Your task to perform on an android device: install app "Google Calendar" Image 0: 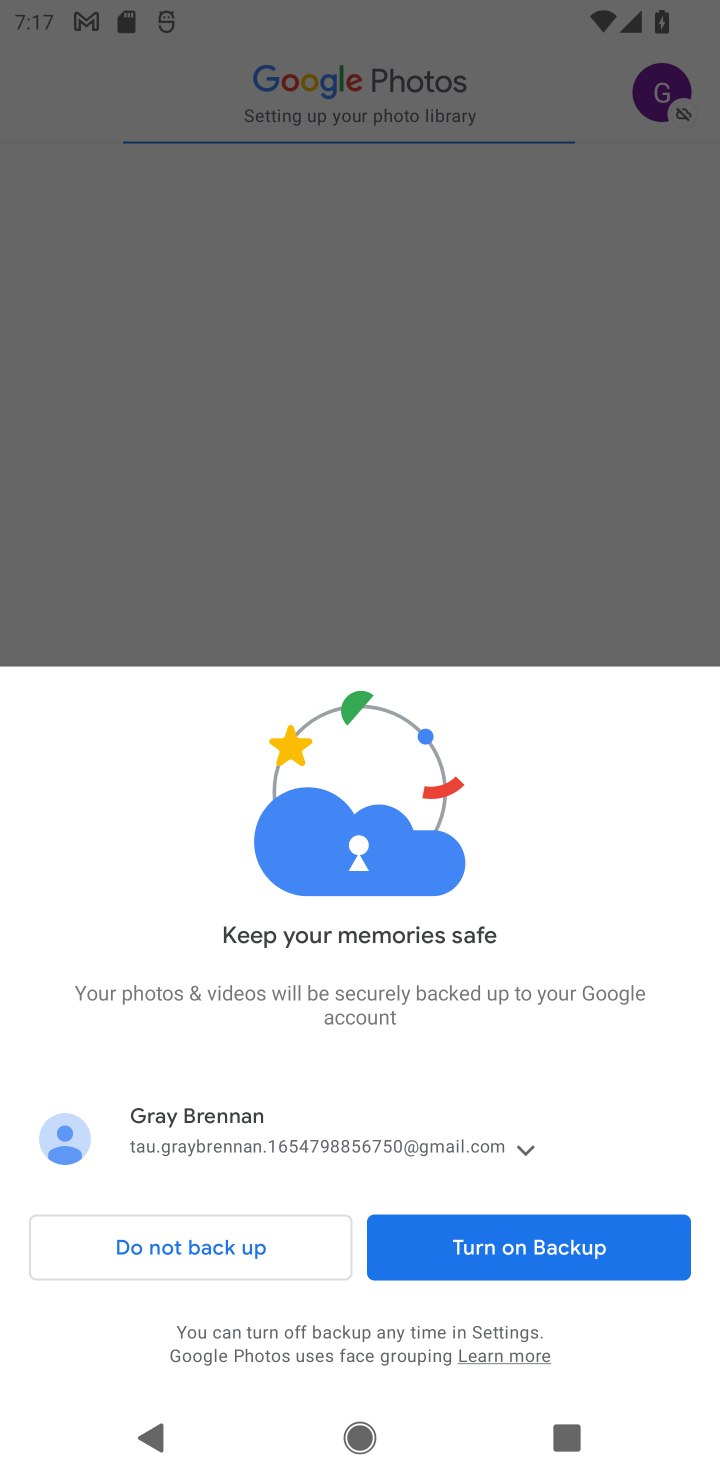
Step 0: press home button
Your task to perform on an android device: install app "Google Calendar" Image 1: 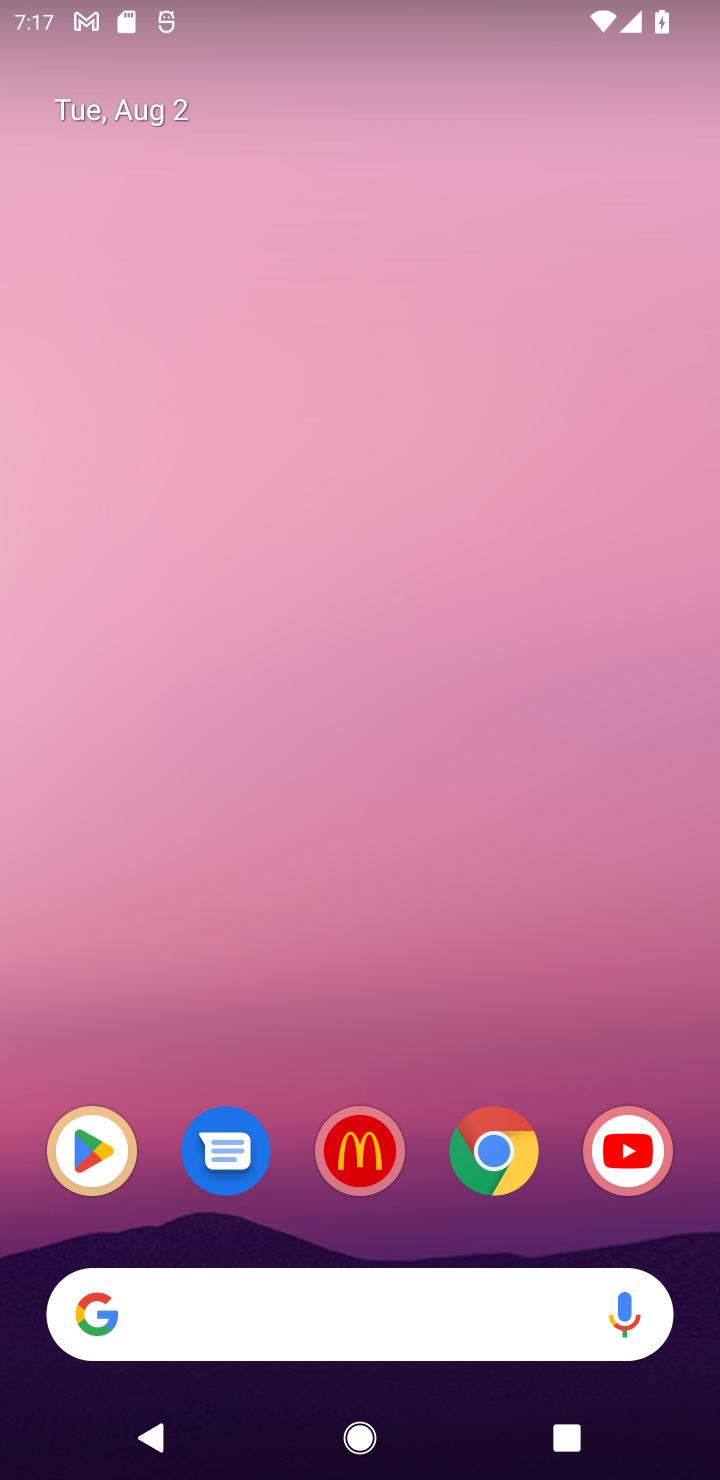
Step 1: drag from (331, 1271) to (589, 17)
Your task to perform on an android device: install app "Google Calendar" Image 2: 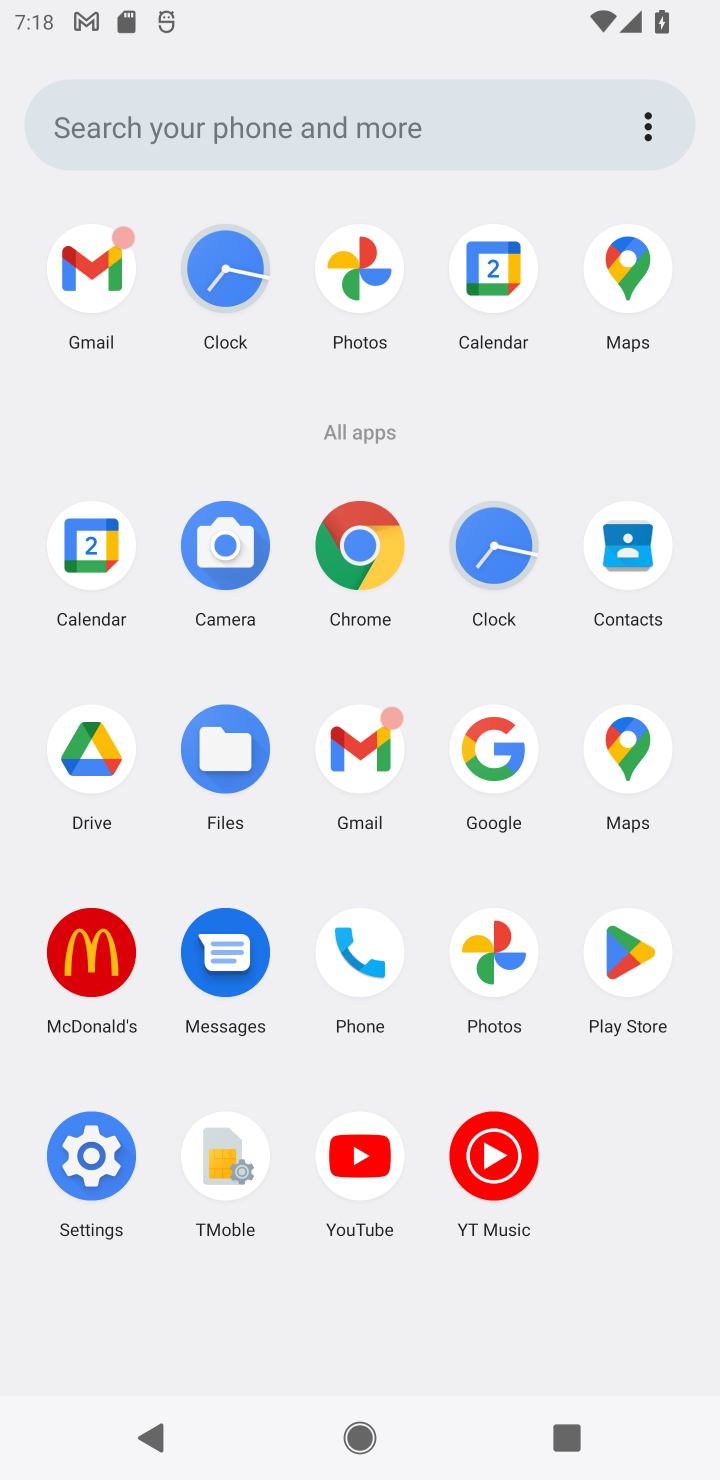
Step 2: click (77, 576)
Your task to perform on an android device: install app "Google Calendar" Image 3: 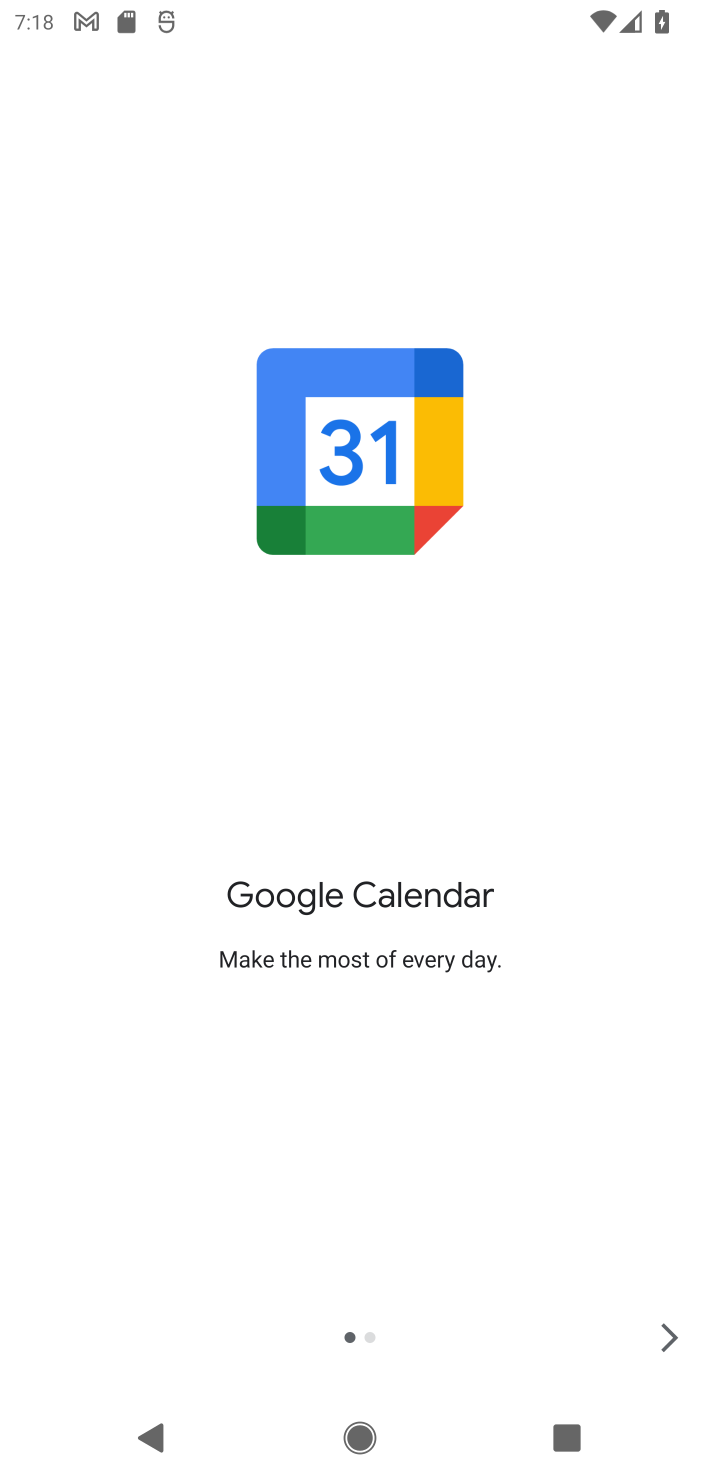
Step 3: click (680, 1354)
Your task to perform on an android device: install app "Google Calendar" Image 4: 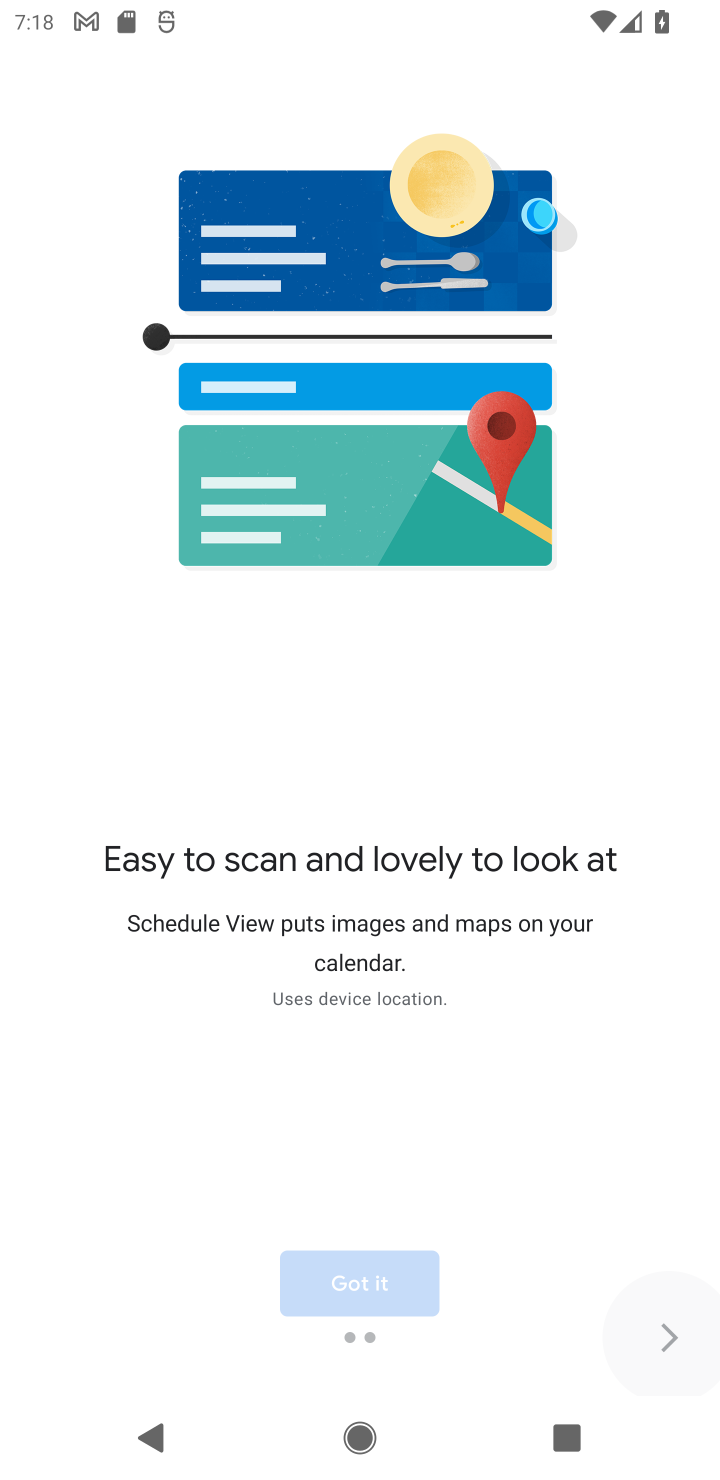
Step 4: click (673, 1358)
Your task to perform on an android device: install app "Google Calendar" Image 5: 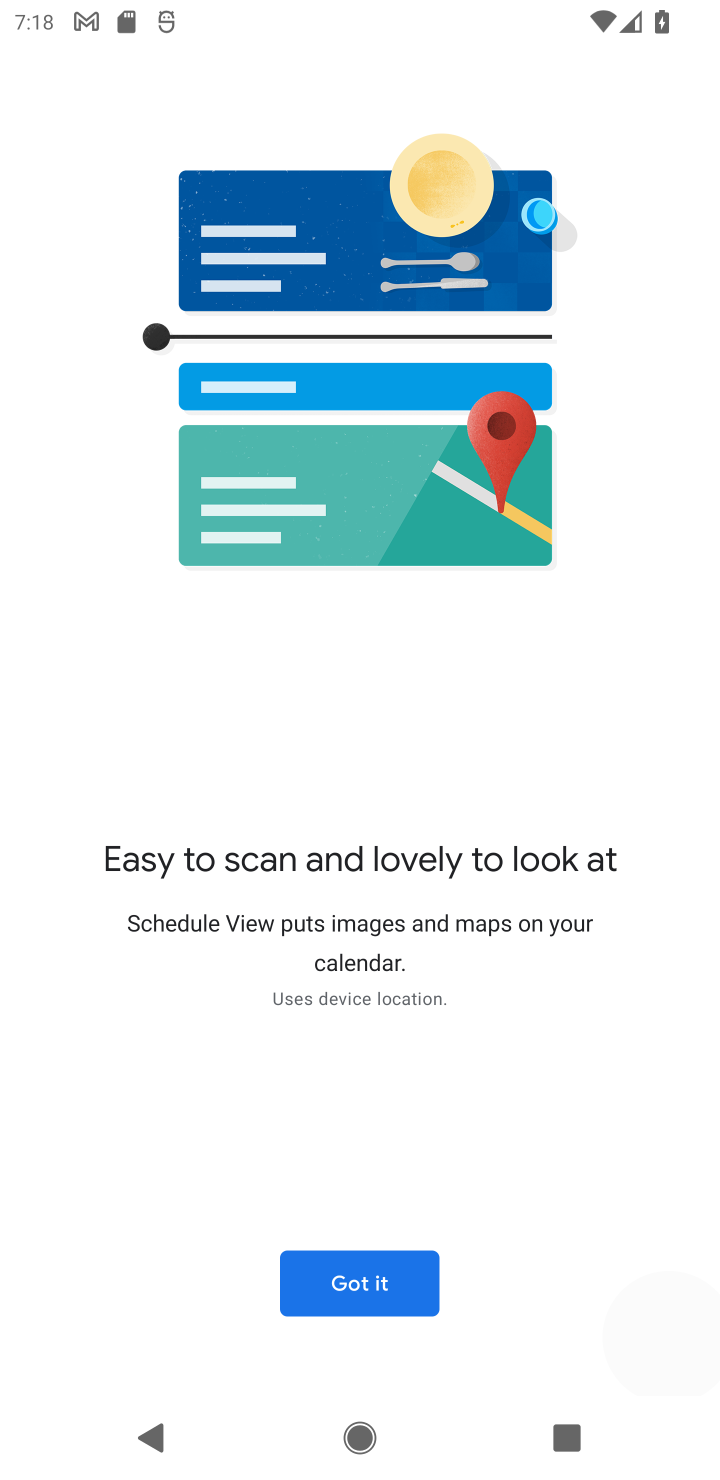
Step 5: click (673, 1358)
Your task to perform on an android device: install app "Google Calendar" Image 6: 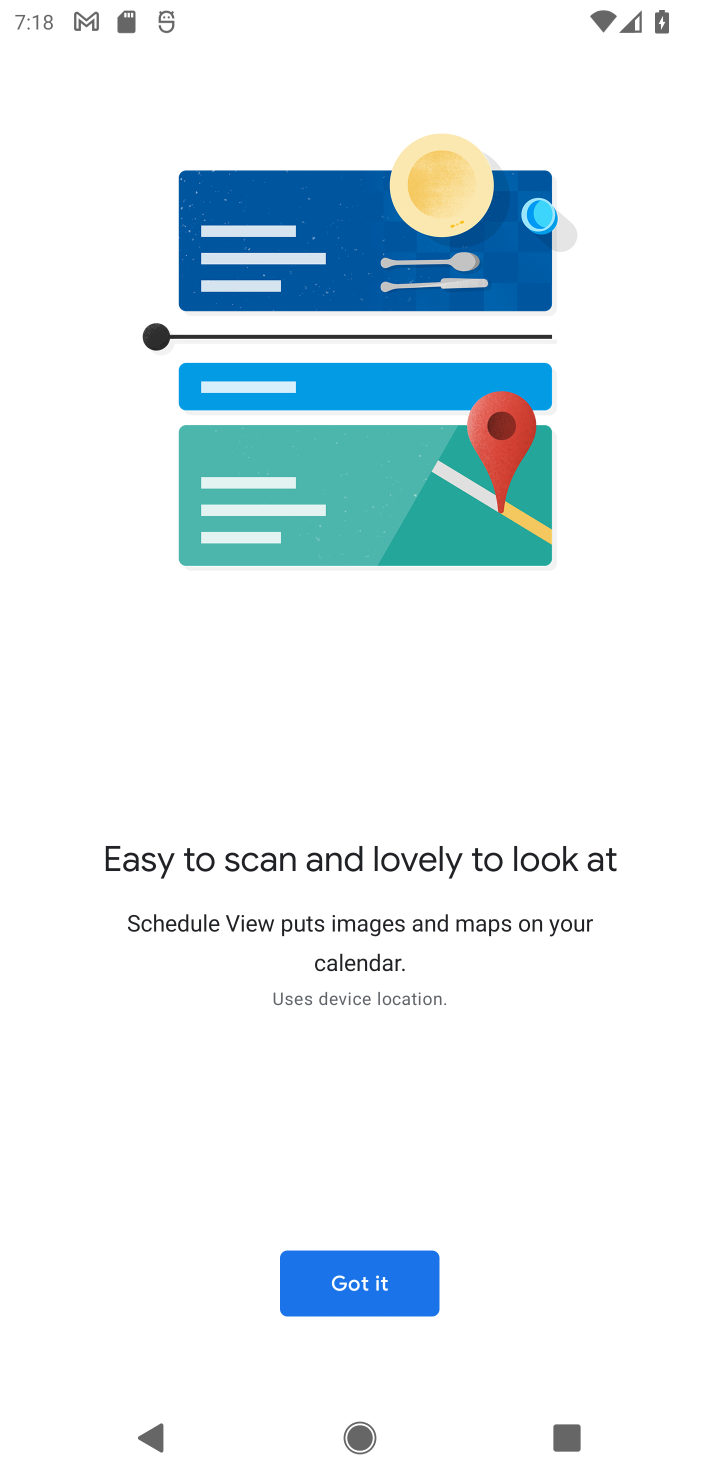
Step 6: click (396, 1311)
Your task to perform on an android device: install app "Google Calendar" Image 7: 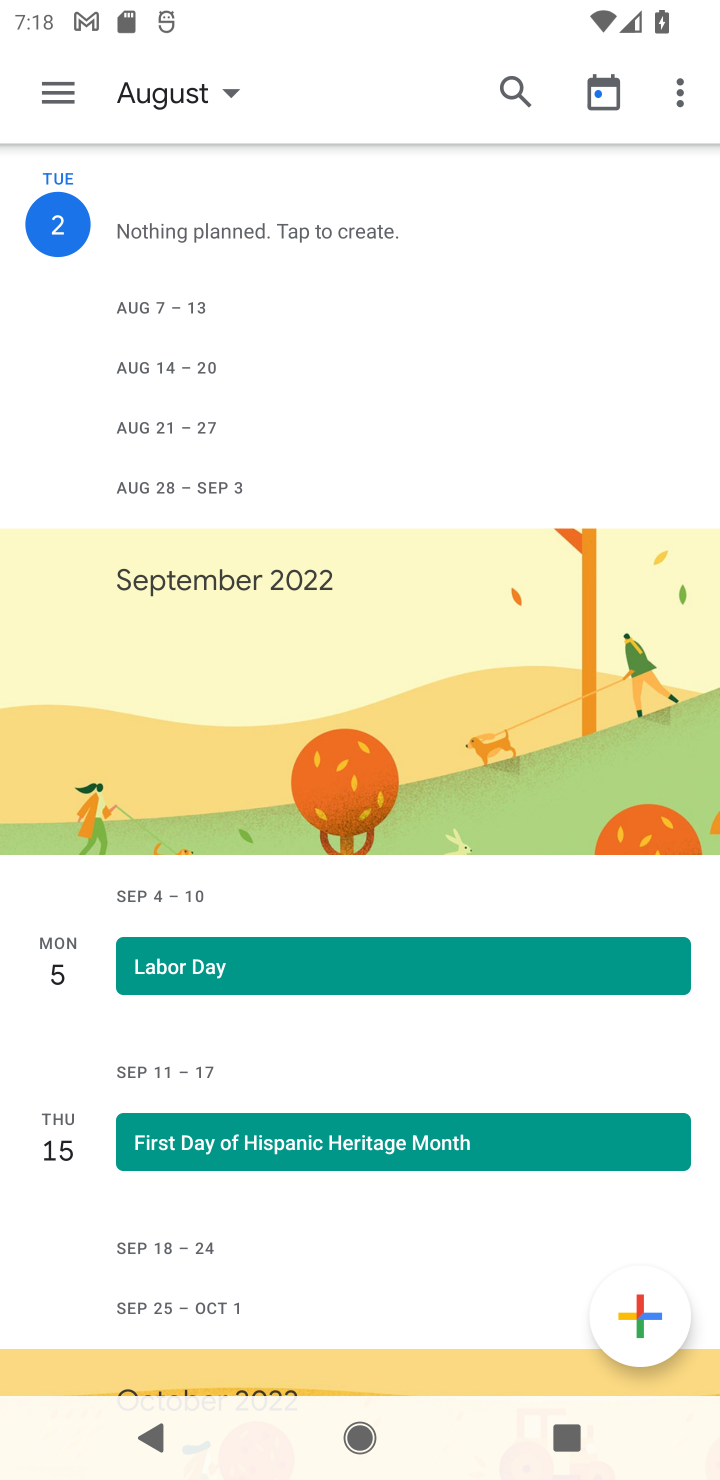
Step 7: task complete